Your task to perform on an android device: turn on showing notifications on the lock screen Image 0: 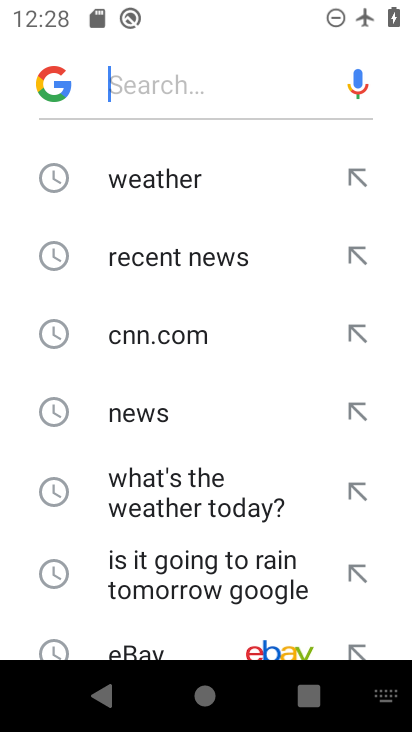
Step 0: press home button
Your task to perform on an android device: turn on showing notifications on the lock screen Image 1: 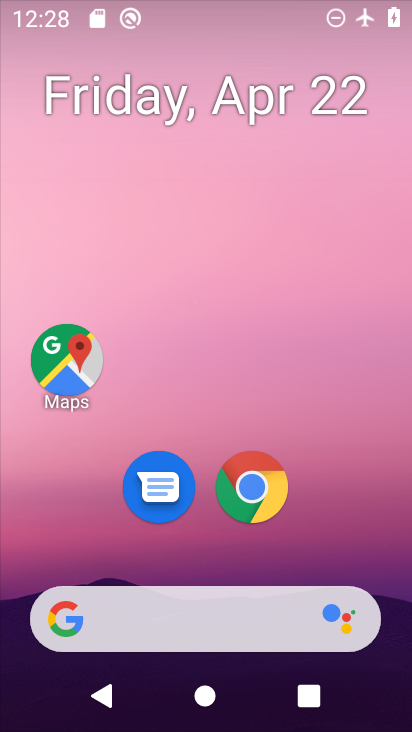
Step 1: drag from (251, 590) to (276, 199)
Your task to perform on an android device: turn on showing notifications on the lock screen Image 2: 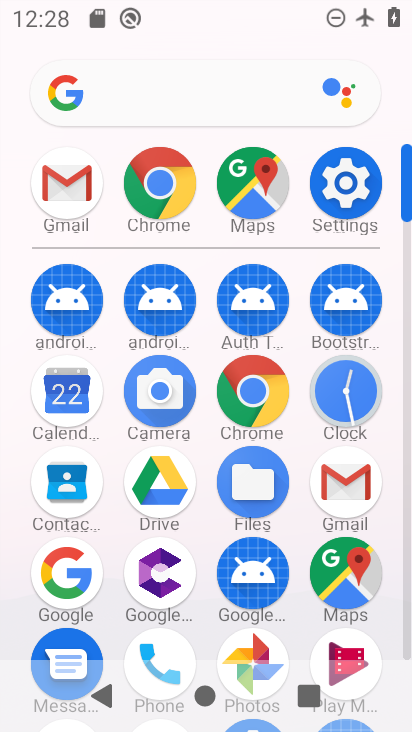
Step 2: click (348, 176)
Your task to perform on an android device: turn on showing notifications on the lock screen Image 3: 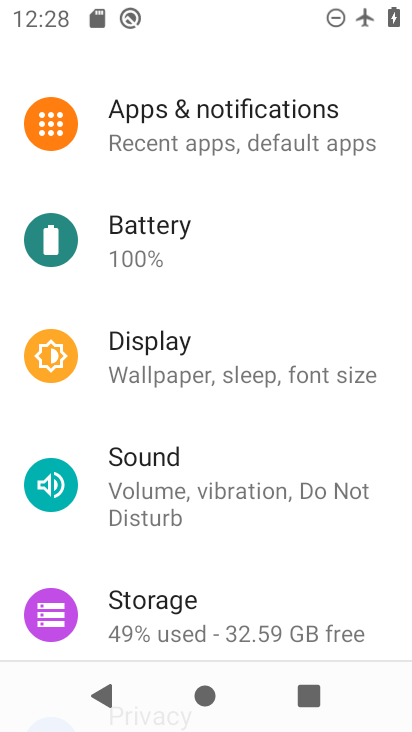
Step 3: drag from (254, 611) to (222, 666)
Your task to perform on an android device: turn on showing notifications on the lock screen Image 4: 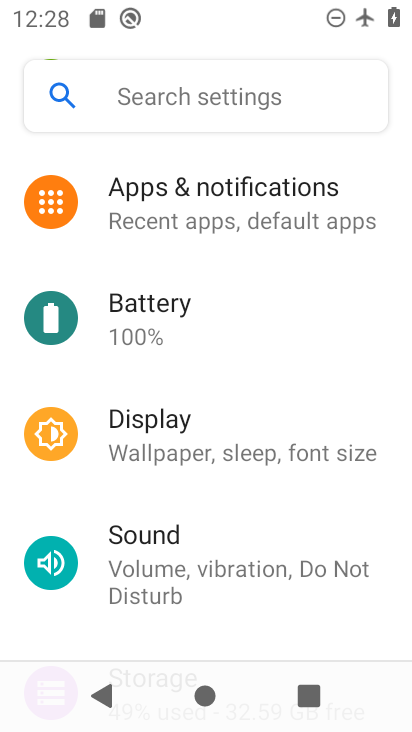
Step 4: click (210, 185)
Your task to perform on an android device: turn on showing notifications on the lock screen Image 5: 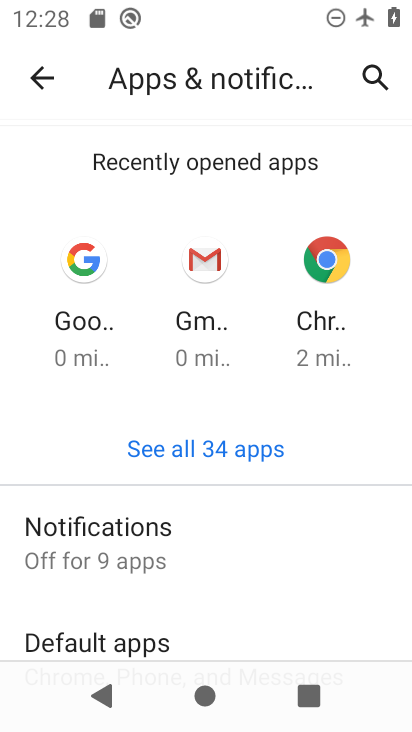
Step 5: click (119, 527)
Your task to perform on an android device: turn on showing notifications on the lock screen Image 6: 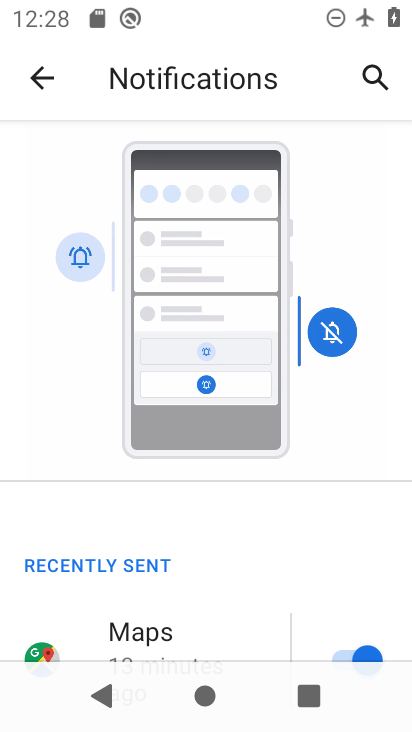
Step 6: drag from (205, 587) to (276, 196)
Your task to perform on an android device: turn on showing notifications on the lock screen Image 7: 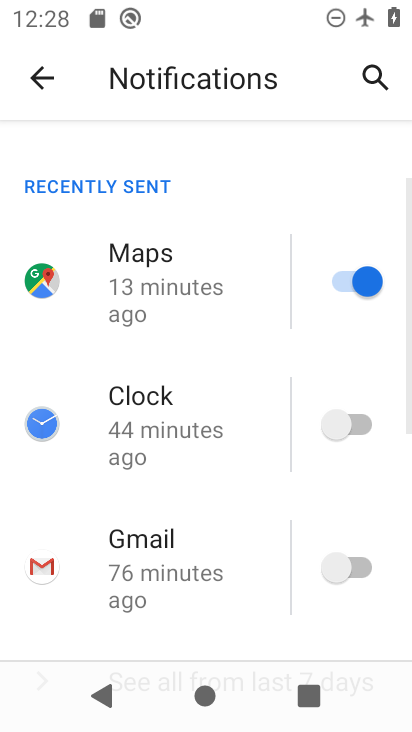
Step 7: drag from (107, 607) to (213, 144)
Your task to perform on an android device: turn on showing notifications on the lock screen Image 8: 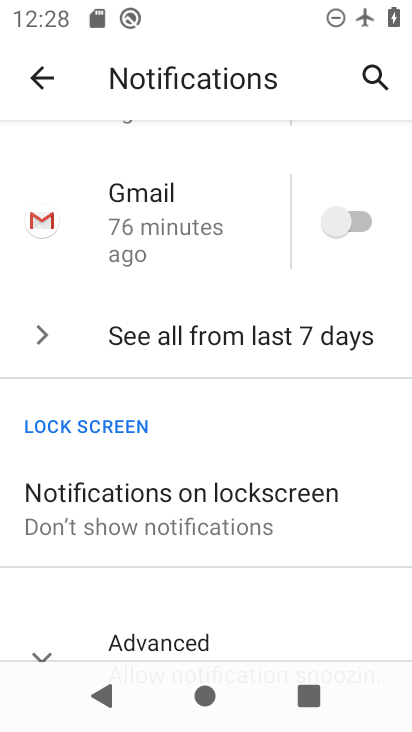
Step 8: click (173, 509)
Your task to perform on an android device: turn on showing notifications on the lock screen Image 9: 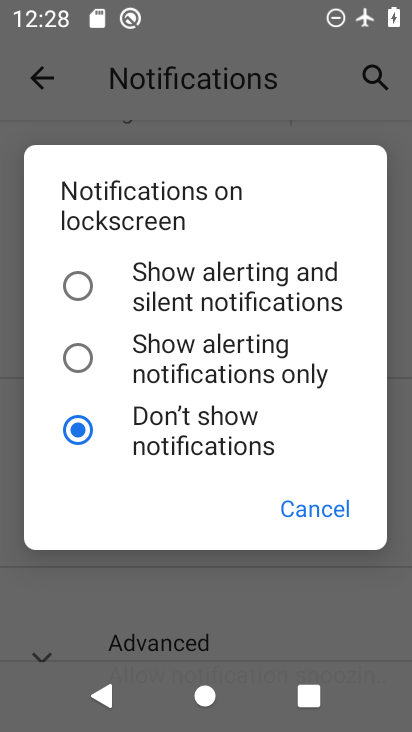
Step 9: click (168, 283)
Your task to perform on an android device: turn on showing notifications on the lock screen Image 10: 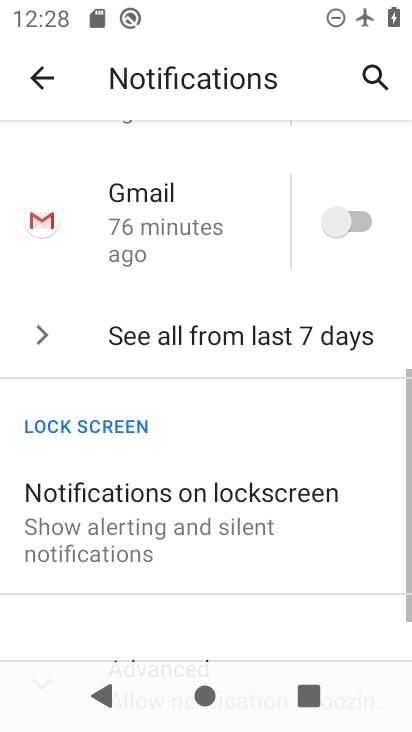
Step 10: click (132, 349)
Your task to perform on an android device: turn on showing notifications on the lock screen Image 11: 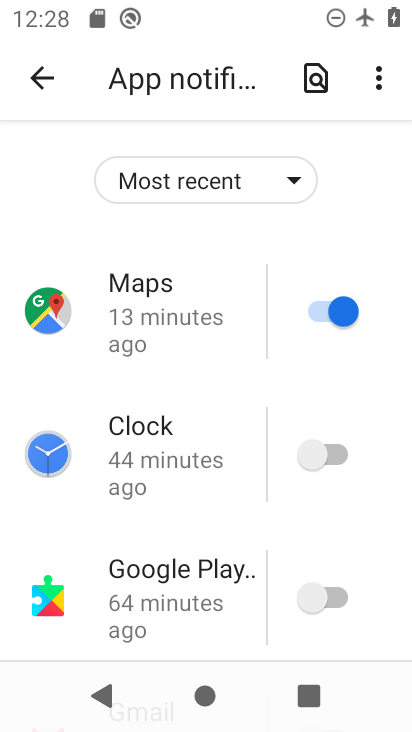
Step 11: click (36, 61)
Your task to perform on an android device: turn on showing notifications on the lock screen Image 12: 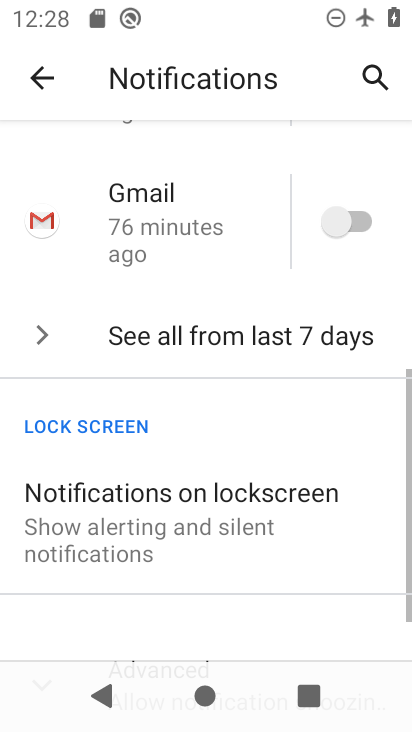
Step 12: click (184, 538)
Your task to perform on an android device: turn on showing notifications on the lock screen Image 13: 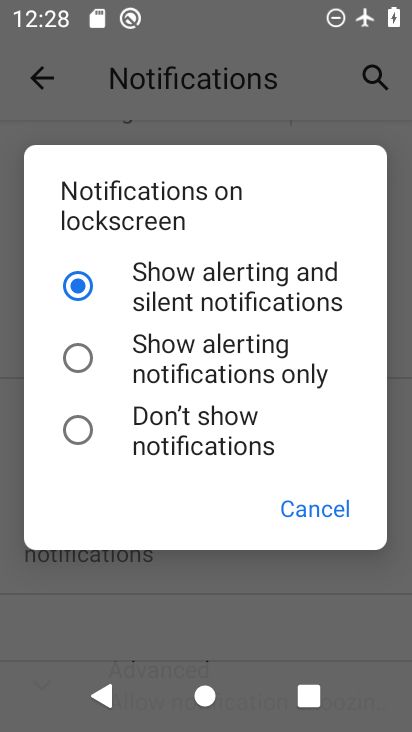
Step 13: click (166, 353)
Your task to perform on an android device: turn on showing notifications on the lock screen Image 14: 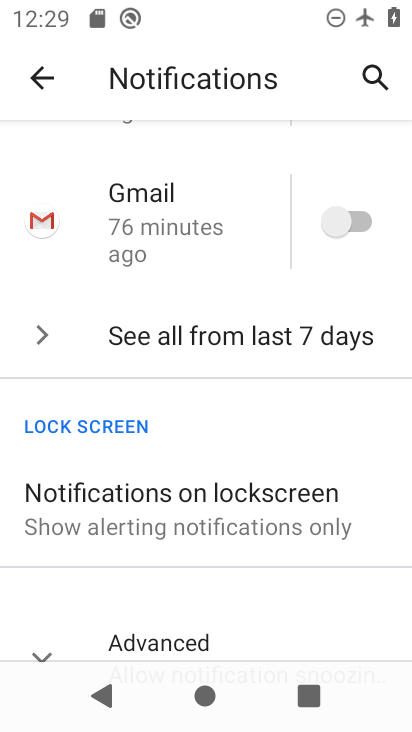
Step 14: task complete